Your task to perform on an android device: Do I have any events this weekend? Image 0: 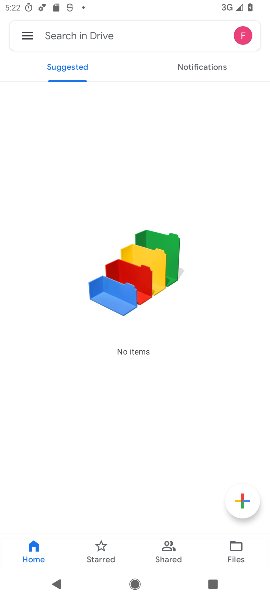
Step 0: press home button
Your task to perform on an android device: Do I have any events this weekend? Image 1: 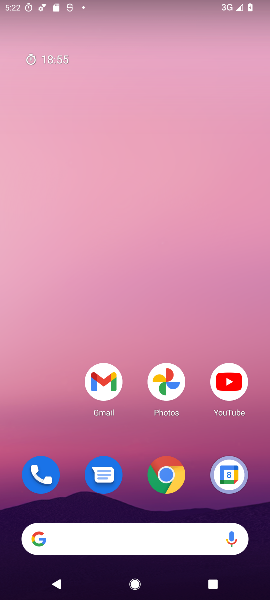
Step 1: drag from (62, 424) to (85, 98)
Your task to perform on an android device: Do I have any events this weekend? Image 2: 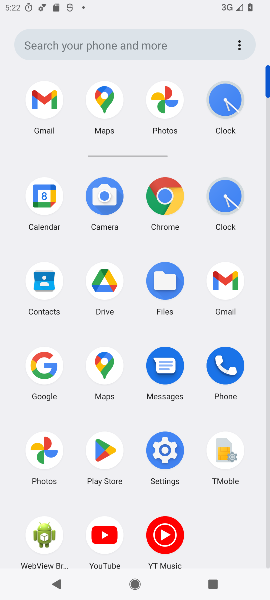
Step 2: click (44, 197)
Your task to perform on an android device: Do I have any events this weekend? Image 3: 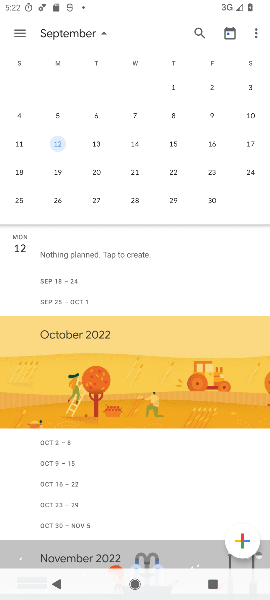
Step 3: drag from (122, 268) to (145, 49)
Your task to perform on an android device: Do I have any events this weekend? Image 4: 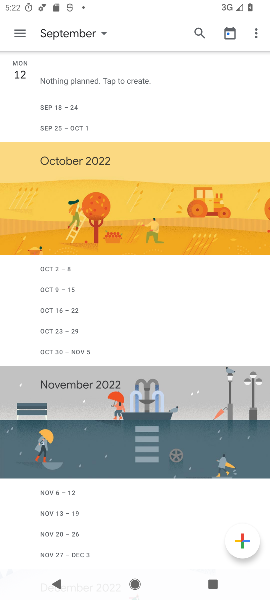
Step 4: drag from (140, 80) to (137, 197)
Your task to perform on an android device: Do I have any events this weekend? Image 5: 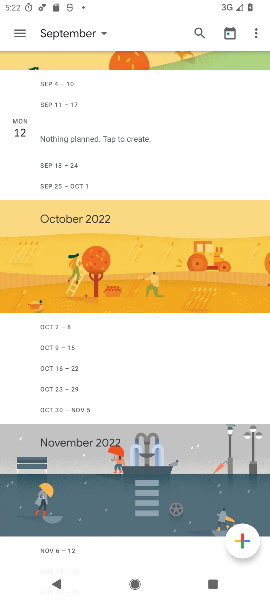
Step 5: drag from (142, 84) to (146, 213)
Your task to perform on an android device: Do I have any events this weekend? Image 6: 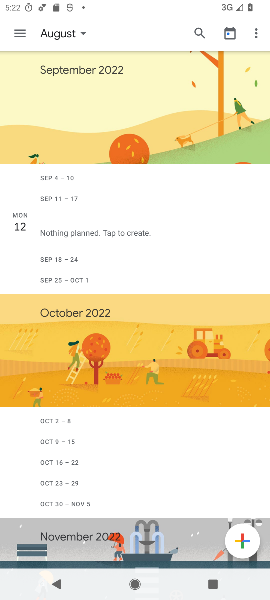
Step 6: click (81, 29)
Your task to perform on an android device: Do I have any events this weekend? Image 7: 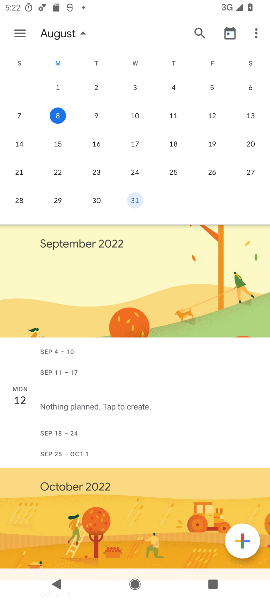
Step 7: click (250, 116)
Your task to perform on an android device: Do I have any events this weekend? Image 8: 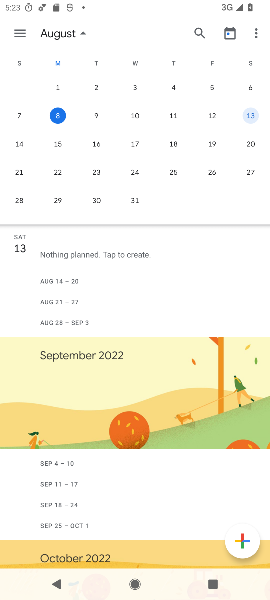
Step 8: task complete